Your task to perform on an android device: Open the Play Movies app and select the watchlist tab. Image 0: 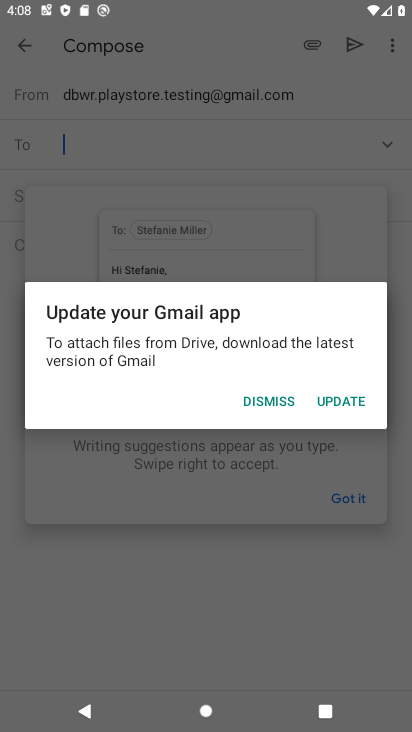
Step 0: press home button
Your task to perform on an android device: Open the Play Movies app and select the watchlist tab. Image 1: 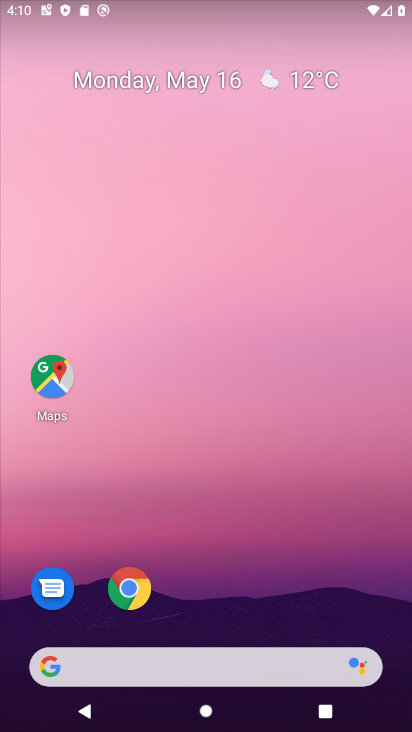
Step 1: drag from (288, 611) to (248, 127)
Your task to perform on an android device: Open the Play Movies app and select the watchlist tab. Image 2: 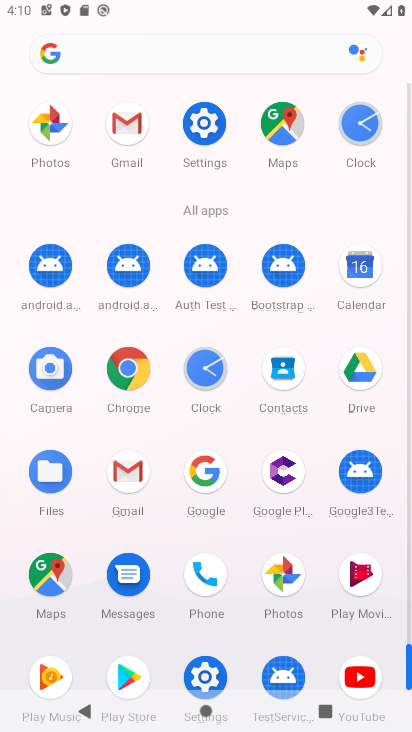
Step 2: click (354, 597)
Your task to perform on an android device: Open the Play Movies app and select the watchlist tab. Image 3: 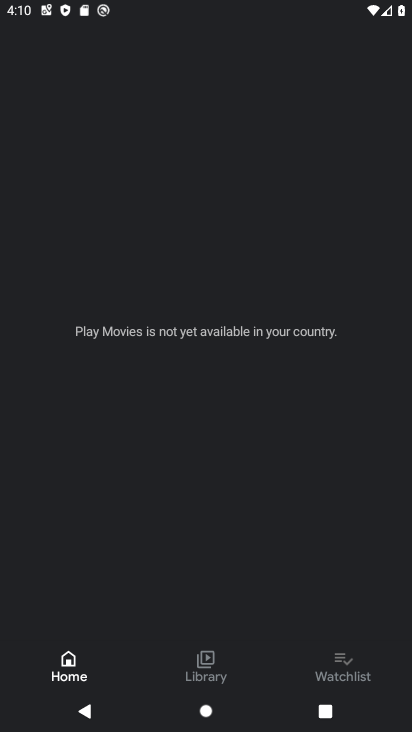
Step 3: click (343, 667)
Your task to perform on an android device: Open the Play Movies app and select the watchlist tab. Image 4: 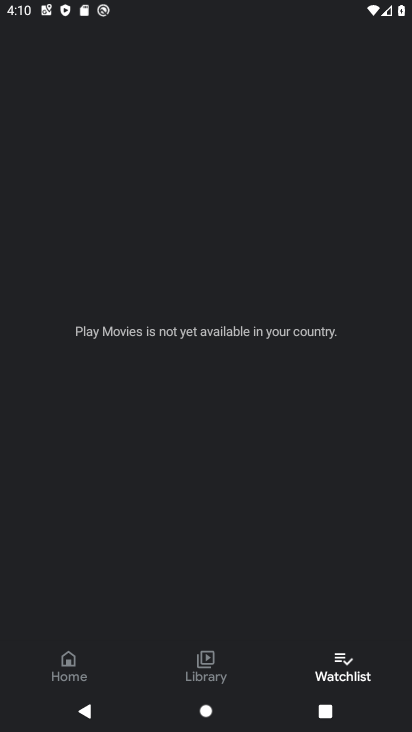
Step 4: task complete